Your task to perform on an android device: open device folders in google photos Image 0: 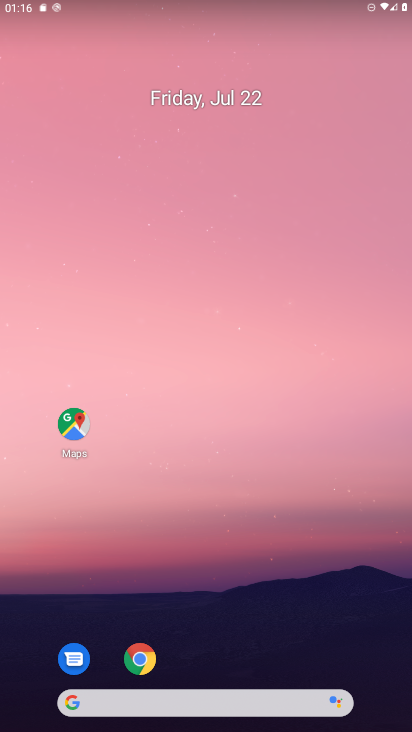
Step 0: drag from (227, 709) to (133, 94)
Your task to perform on an android device: open device folders in google photos Image 1: 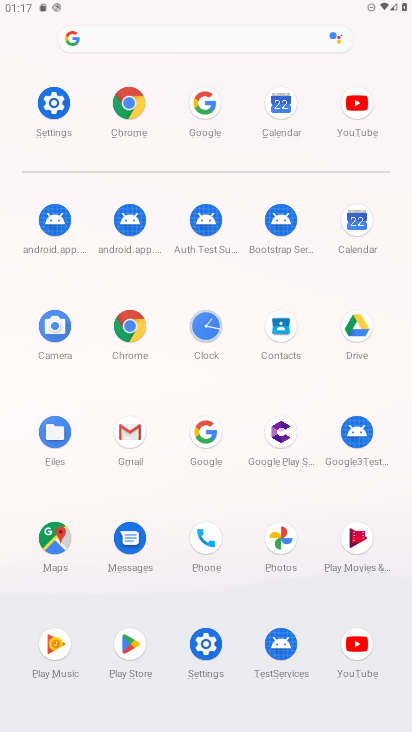
Step 1: click (282, 535)
Your task to perform on an android device: open device folders in google photos Image 2: 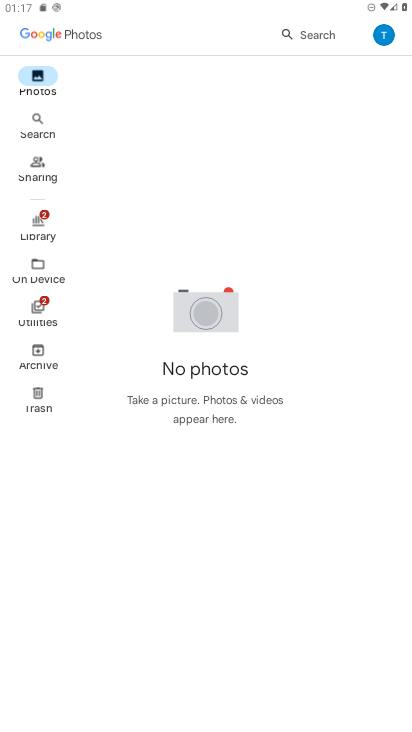
Step 2: click (47, 266)
Your task to perform on an android device: open device folders in google photos Image 3: 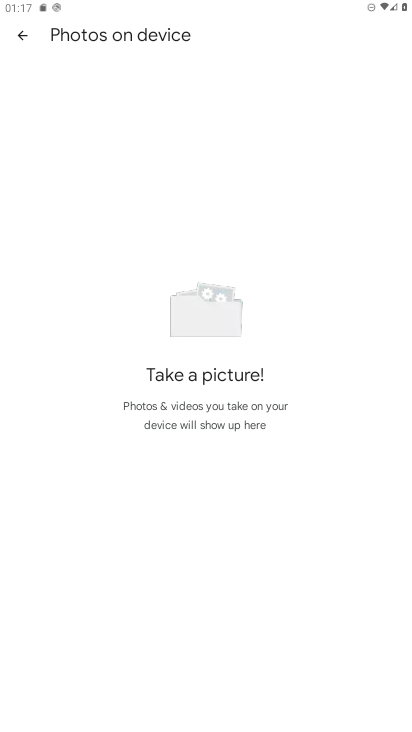
Step 3: task complete